Your task to perform on an android device: Open the stopwatch Image 0: 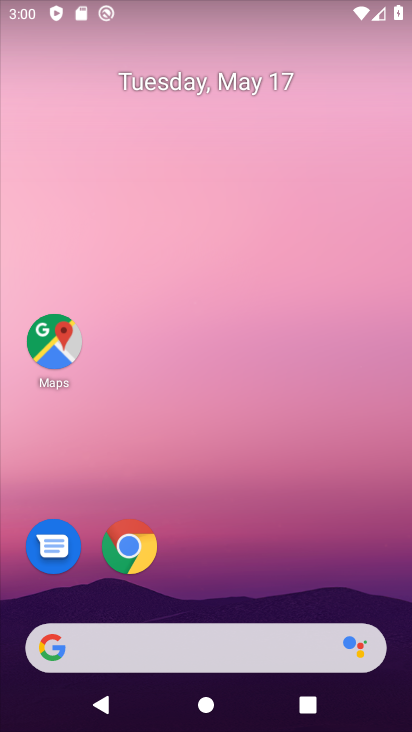
Step 0: drag from (205, 535) to (230, 114)
Your task to perform on an android device: Open the stopwatch Image 1: 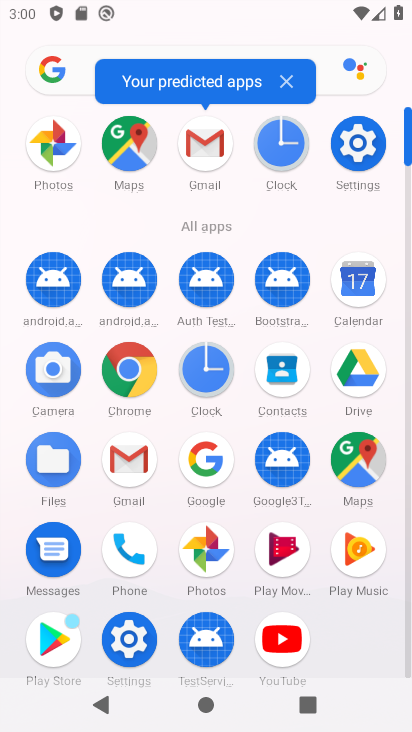
Step 1: click (202, 362)
Your task to perform on an android device: Open the stopwatch Image 2: 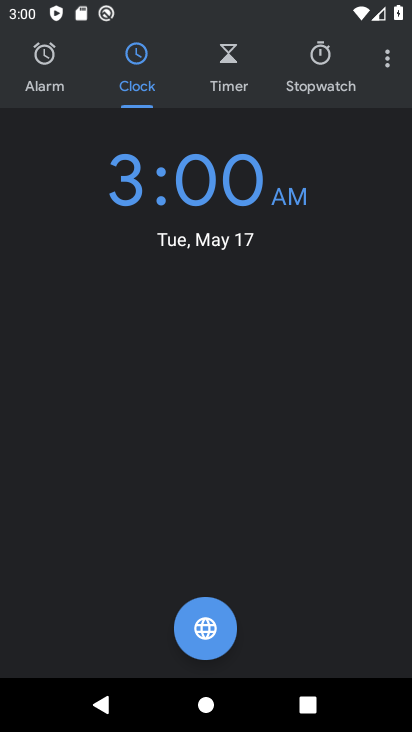
Step 2: click (313, 84)
Your task to perform on an android device: Open the stopwatch Image 3: 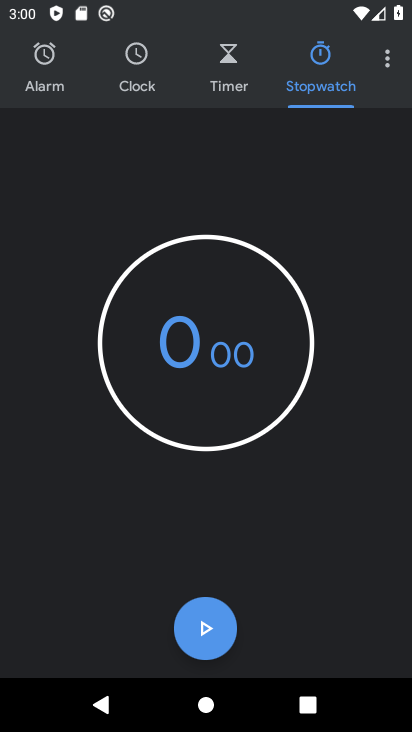
Step 3: task complete